Your task to perform on an android device: Open sound settings Image 0: 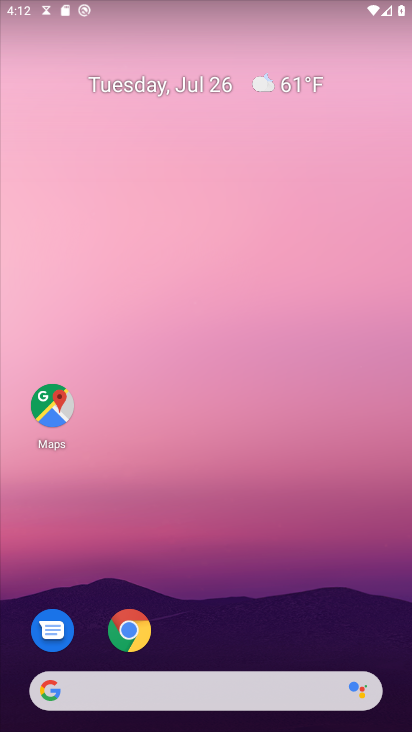
Step 0: drag from (277, 565) to (229, 73)
Your task to perform on an android device: Open sound settings Image 1: 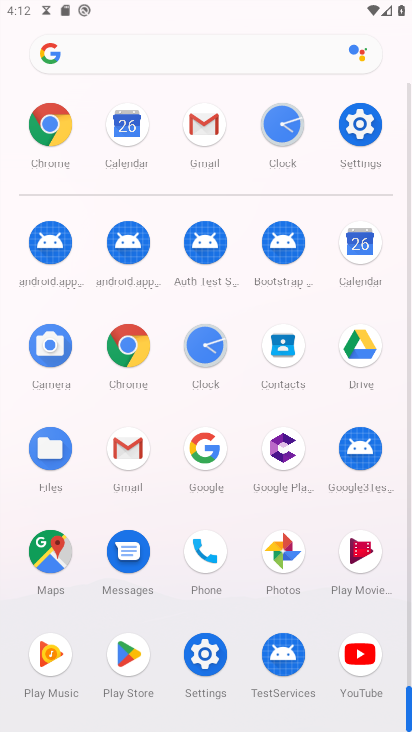
Step 1: click (363, 132)
Your task to perform on an android device: Open sound settings Image 2: 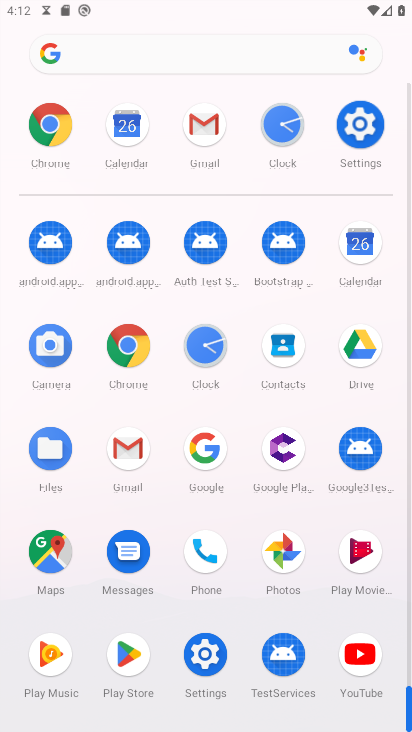
Step 2: click (366, 133)
Your task to perform on an android device: Open sound settings Image 3: 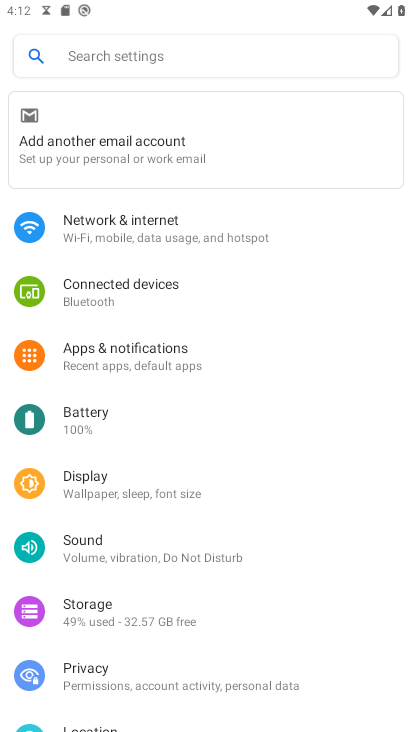
Step 3: click (87, 540)
Your task to perform on an android device: Open sound settings Image 4: 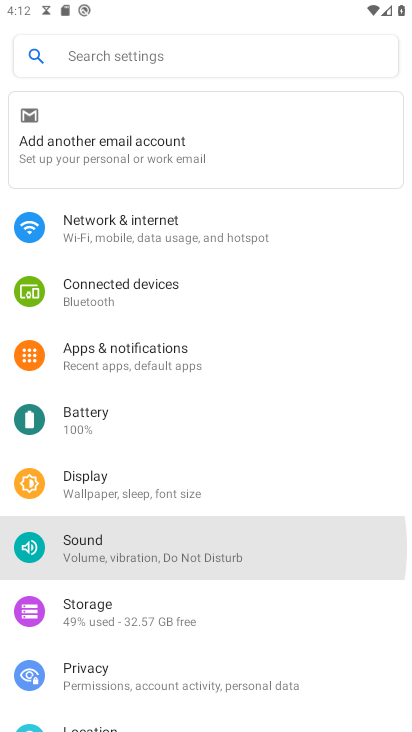
Step 4: click (87, 540)
Your task to perform on an android device: Open sound settings Image 5: 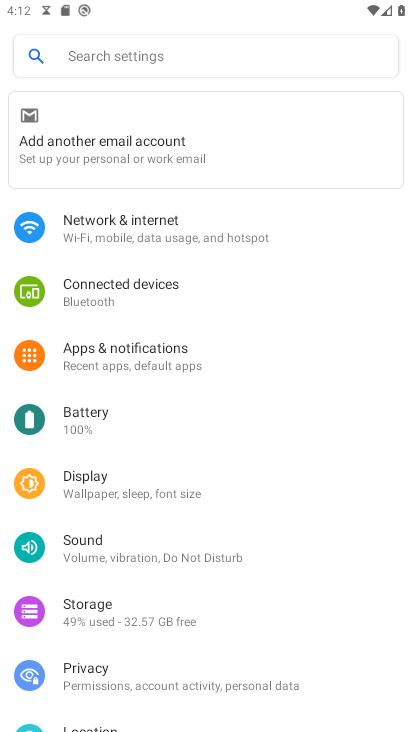
Step 5: click (87, 540)
Your task to perform on an android device: Open sound settings Image 6: 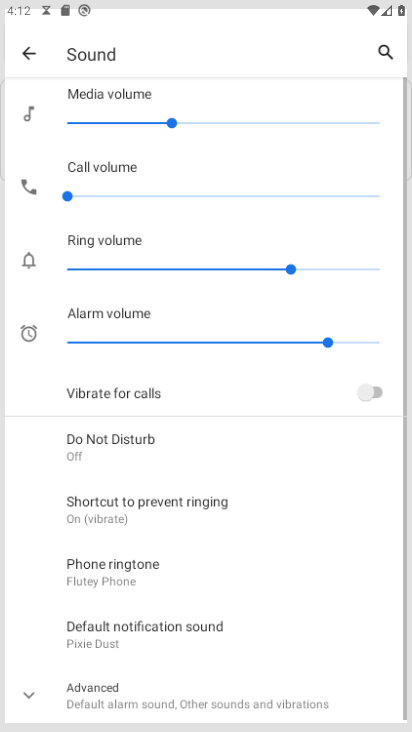
Step 6: click (87, 540)
Your task to perform on an android device: Open sound settings Image 7: 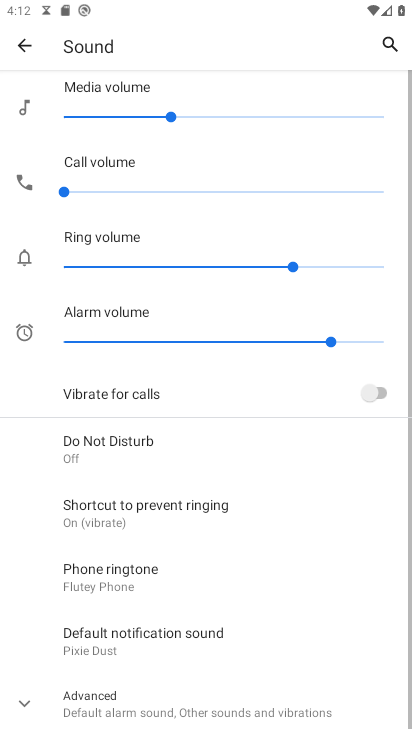
Step 7: click (89, 540)
Your task to perform on an android device: Open sound settings Image 8: 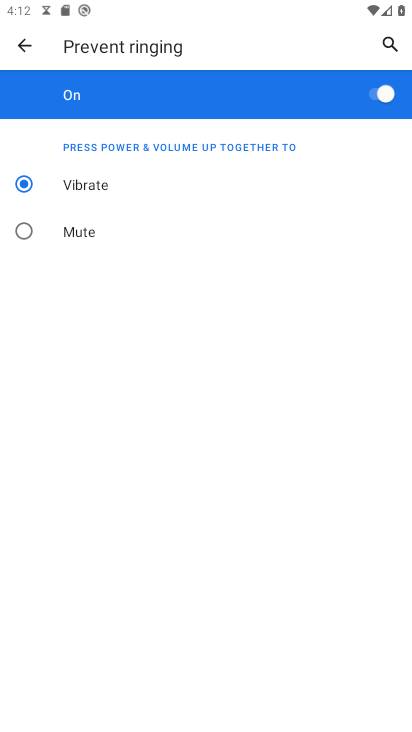
Step 8: click (8, 40)
Your task to perform on an android device: Open sound settings Image 9: 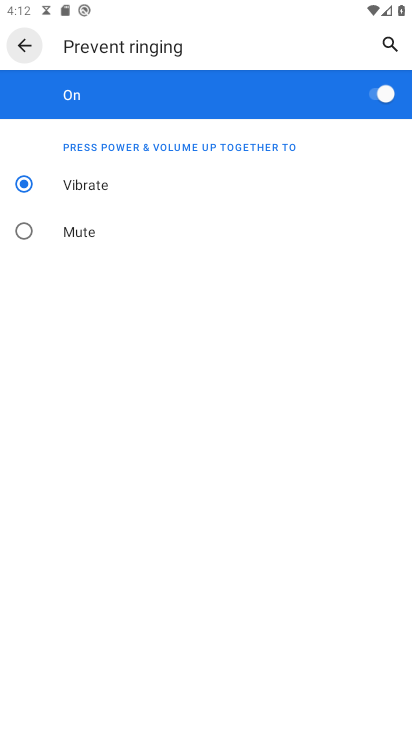
Step 9: click (21, 49)
Your task to perform on an android device: Open sound settings Image 10: 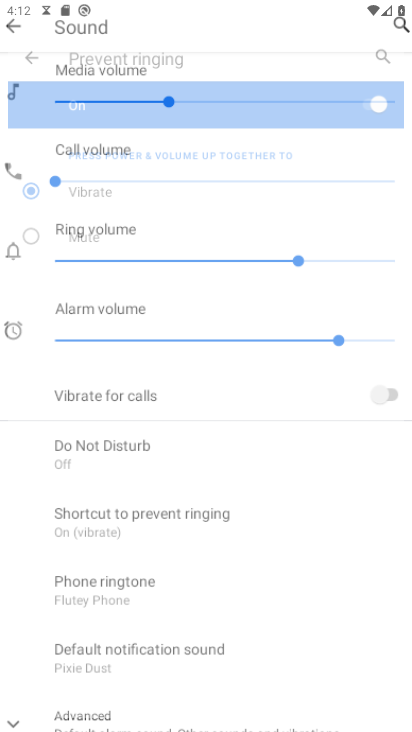
Step 10: click (22, 49)
Your task to perform on an android device: Open sound settings Image 11: 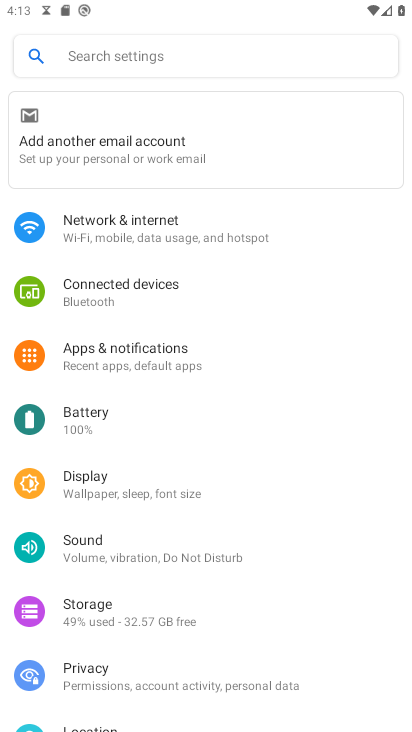
Step 11: click (99, 551)
Your task to perform on an android device: Open sound settings Image 12: 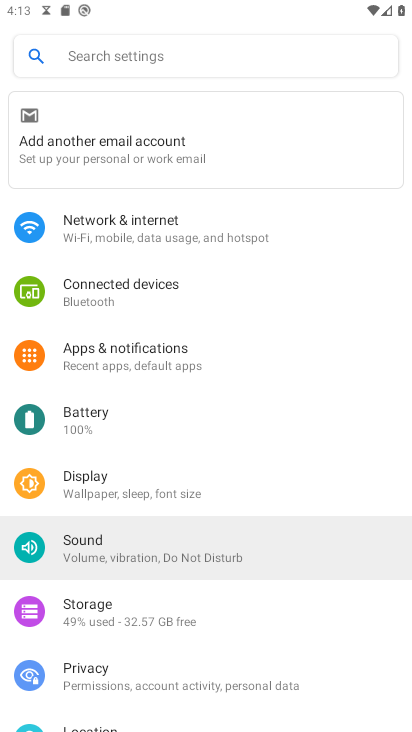
Step 12: click (99, 549)
Your task to perform on an android device: Open sound settings Image 13: 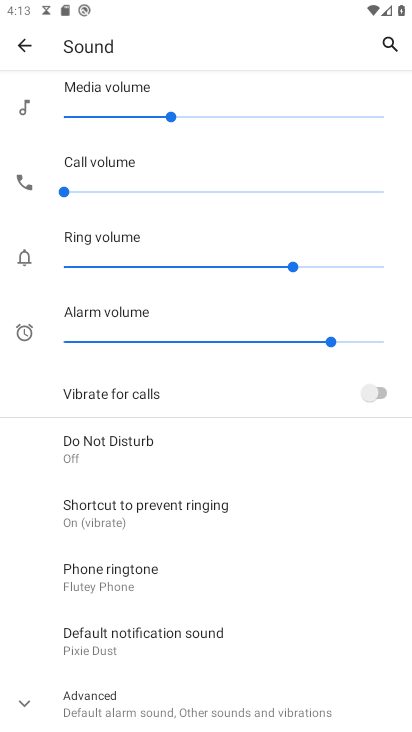
Step 13: drag from (127, 521) to (123, 219)
Your task to perform on an android device: Open sound settings Image 14: 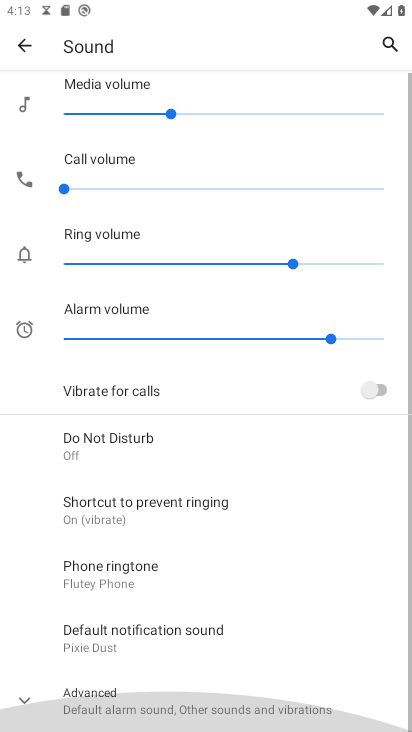
Step 14: drag from (178, 453) to (165, 122)
Your task to perform on an android device: Open sound settings Image 15: 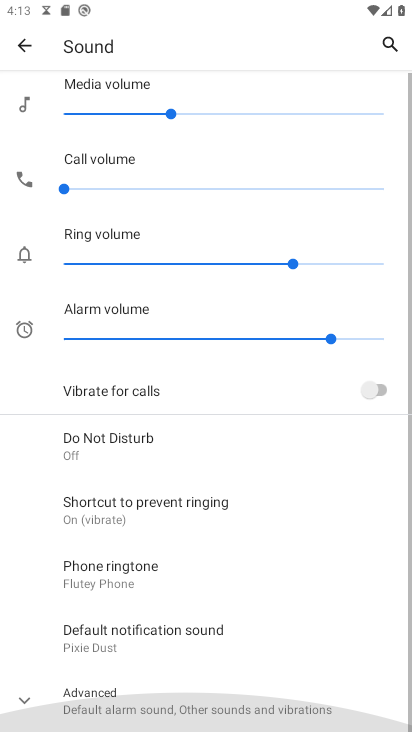
Step 15: drag from (159, 388) to (185, 191)
Your task to perform on an android device: Open sound settings Image 16: 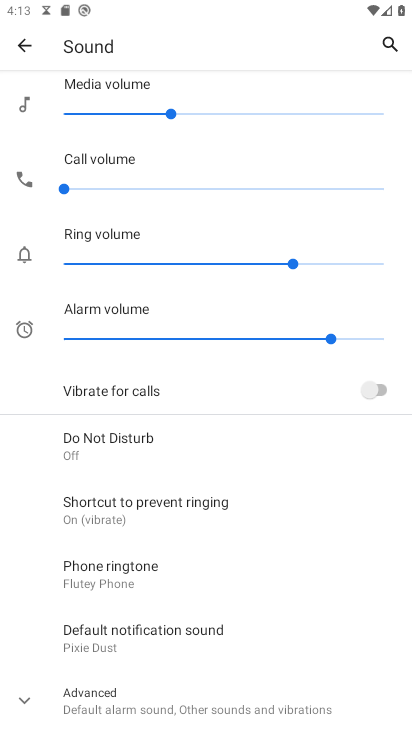
Step 16: click (81, 444)
Your task to perform on an android device: Open sound settings Image 17: 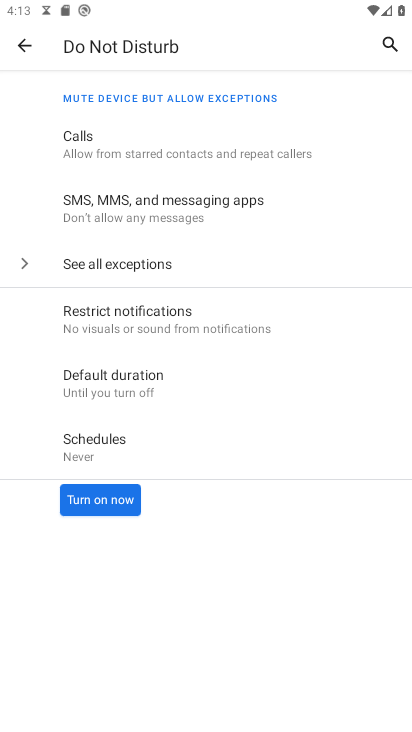
Step 17: task complete